Your task to perform on an android device: Go to internet settings Image 0: 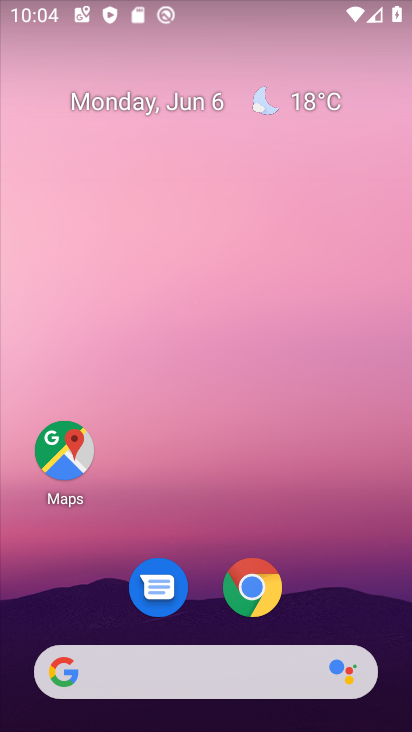
Step 0: drag from (386, 590) to (389, 42)
Your task to perform on an android device: Go to internet settings Image 1: 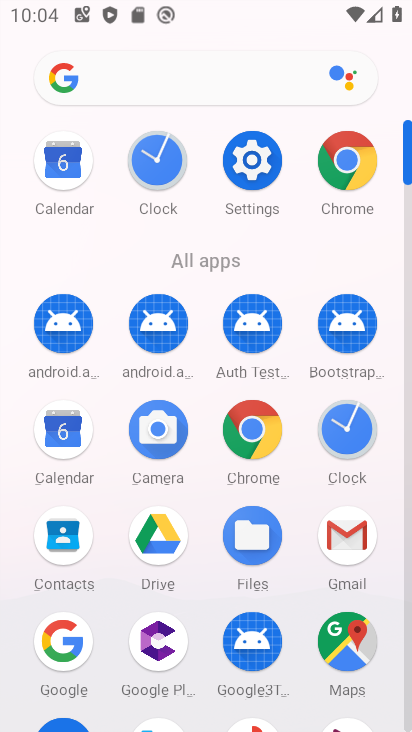
Step 1: click (255, 149)
Your task to perform on an android device: Go to internet settings Image 2: 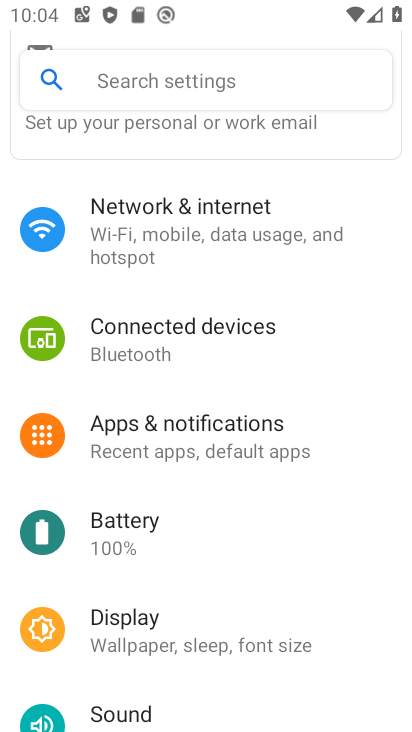
Step 2: click (243, 237)
Your task to perform on an android device: Go to internet settings Image 3: 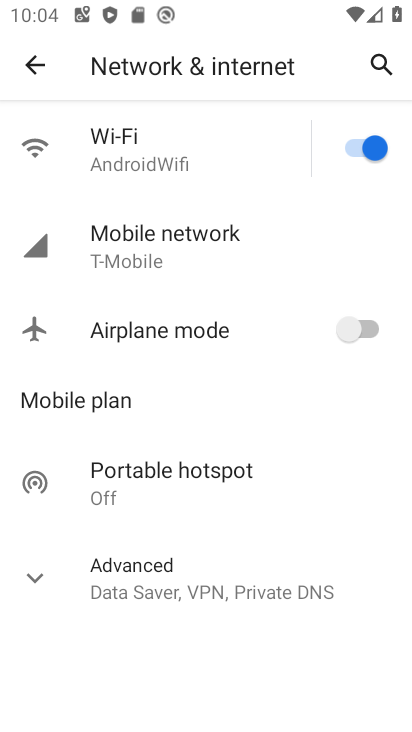
Step 3: task complete